Your task to perform on an android device: turn pop-ups on in chrome Image 0: 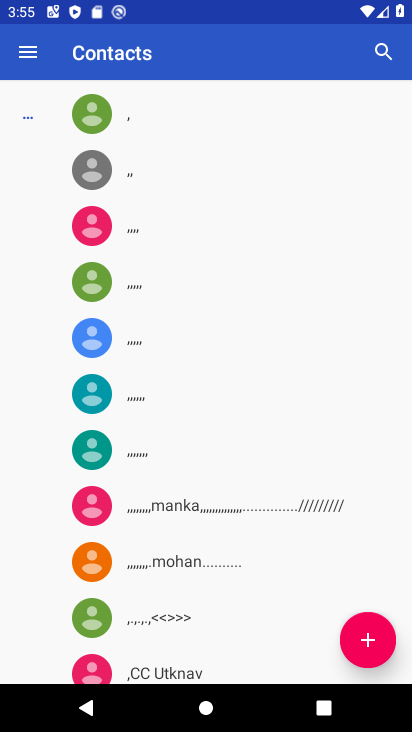
Step 0: press back button
Your task to perform on an android device: turn pop-ups on in chrome Image 1: 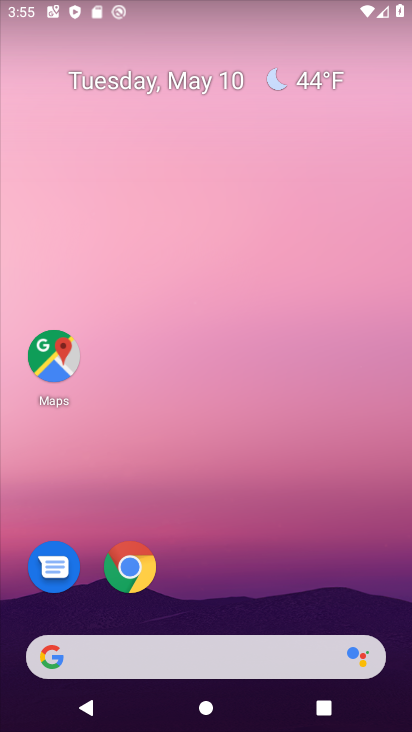
Step 1: click (130, 568)
Your task to perform on an android device: turn pop-ups on in chrome Image 2: 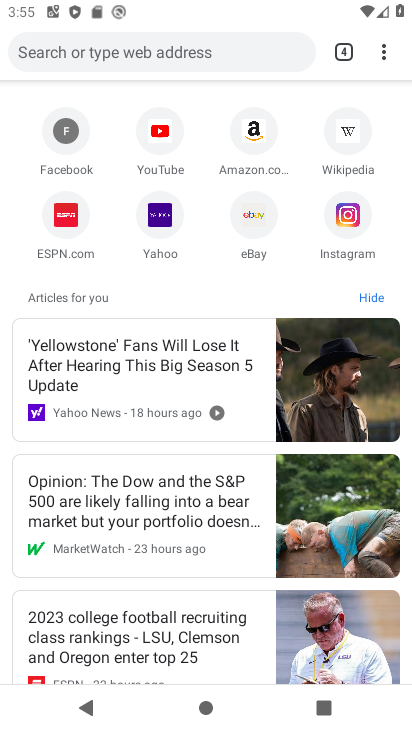
Step 2: click (385, 53)
Your task to perform on an android device: turn pop-ups on in chrome Image 3: 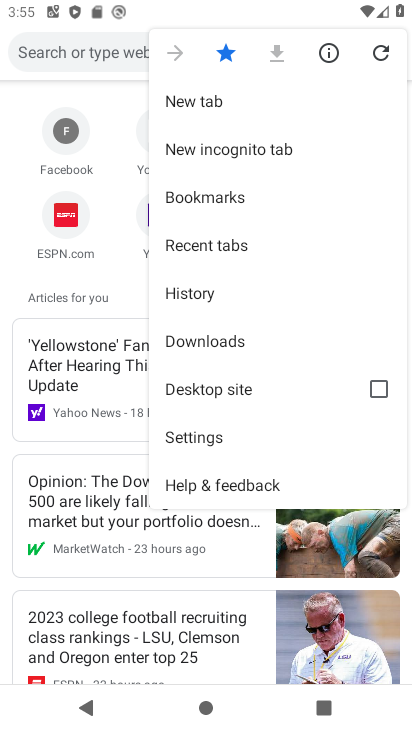
Step 3: click (193, 437)
Your task to perform on an android device: turn pop-ups on in chrome Image 4: 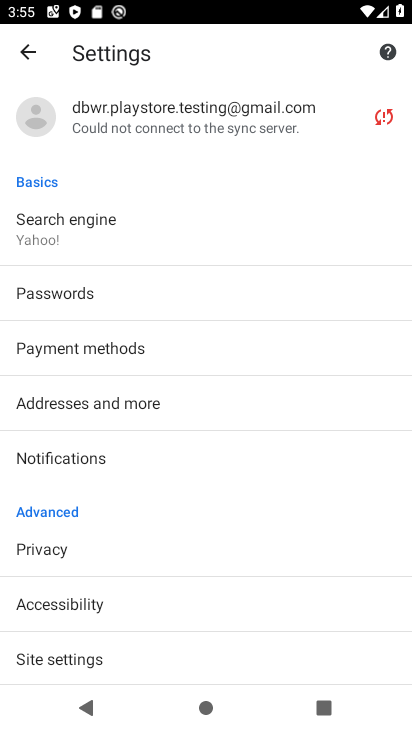
Step 4: drag from (124, 511) to (160, 384)
Your task to perform on an android device: turn pop-ups on in chrome Image 5: 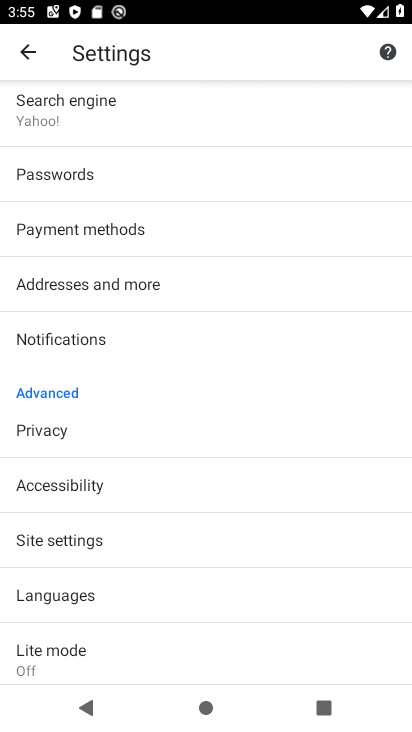
Step 5: click (69, 545)
Your task to perform on an android device: turn pop-ups on in chrome Image 6: 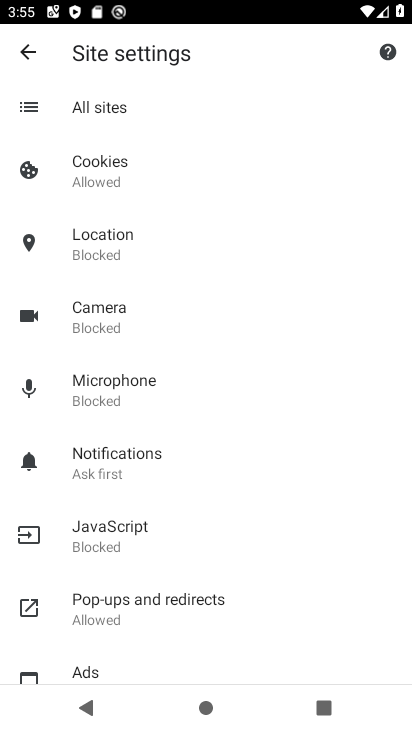
Step 6: click (153, 603)
Your task to perform on an android device: turn pop-ups on in chrome Image 7: 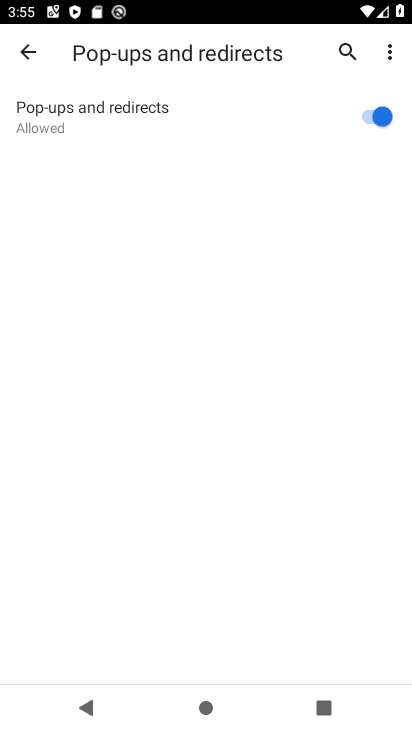
Step 7: task complete